Your task to perform on an android device: Do I have any events tomorrow? Image 0: 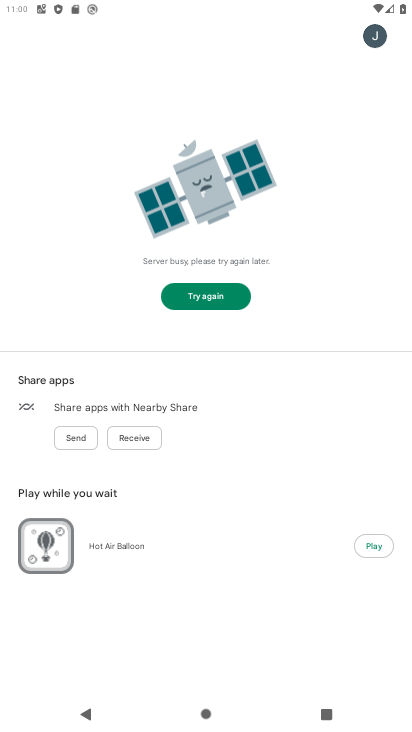
Step 0: press home button
Your task to perform on an android device: Do I have any events tomorrow? Image 1: 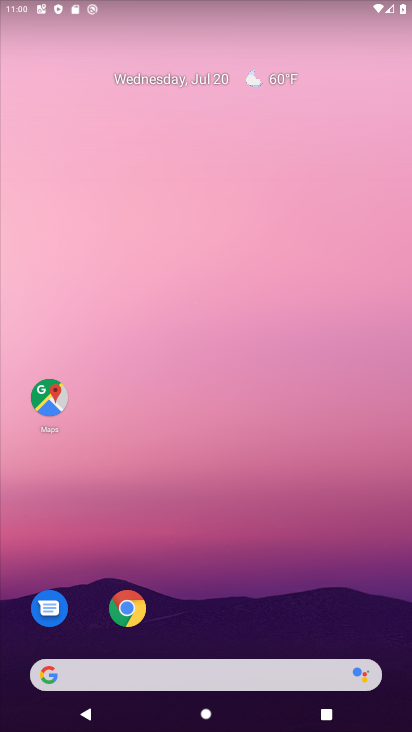
Step 1: drag from (266, 599) to (228, 0)
Your task to perform on an android device: Do I have any events tomorrow? Image 2: 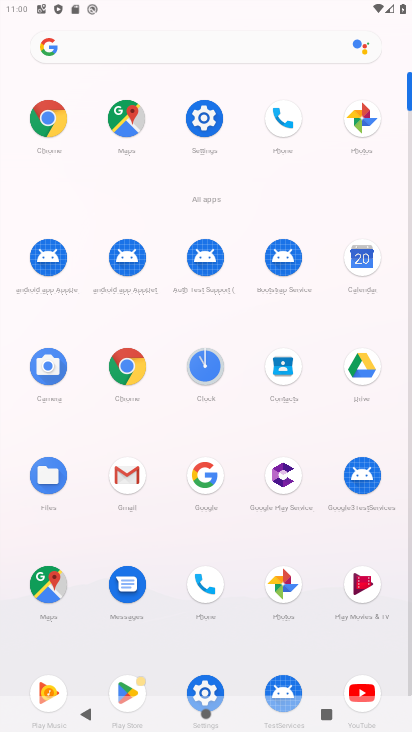
Step 2: click (362, 264)
Your task to perform on an android device: Do I have any events tomorrow? Image 3: 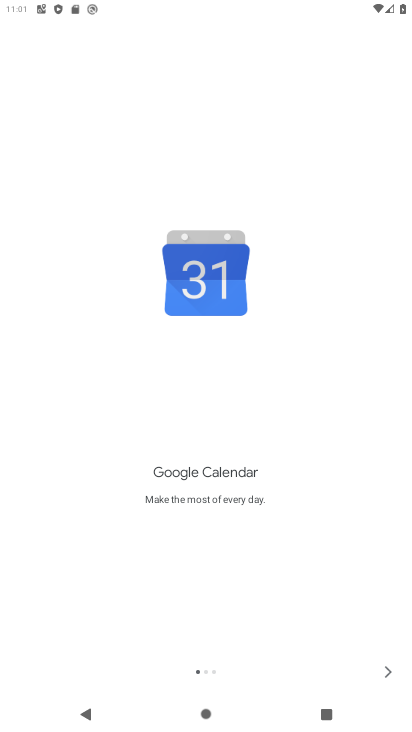
Step 3: click (384, 667)
Your task to perform on an android device: Do I have any events tomorrow? Image 4: 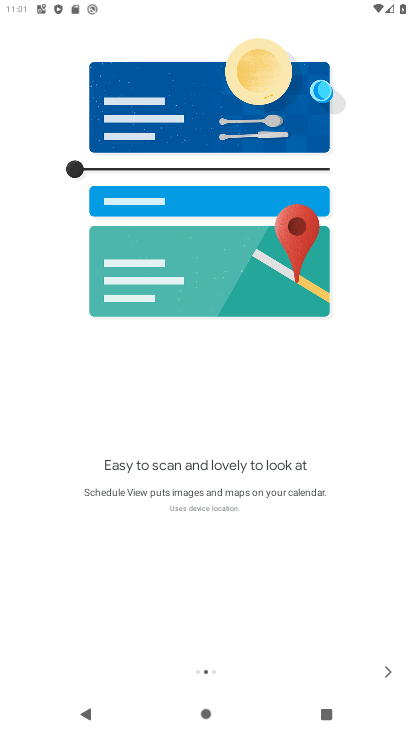
Step 4: click (384, 667)
Your task to perform on an android device: Do I have any events tomorrow? Image 5: 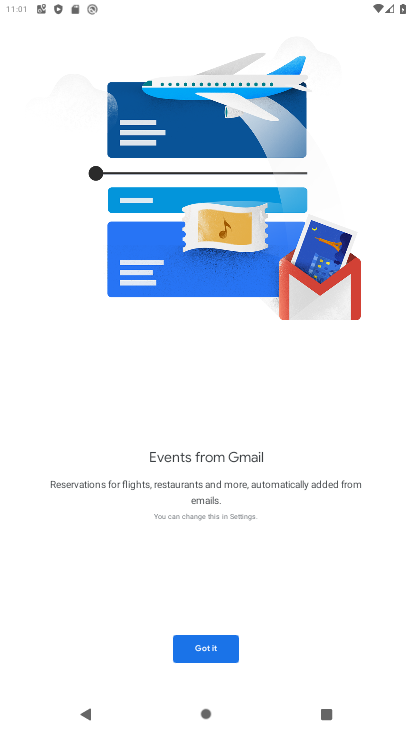
Step 5: click (198, 641)
Your task to perform on an android device: Do I have any events tomorrow? Image 6: 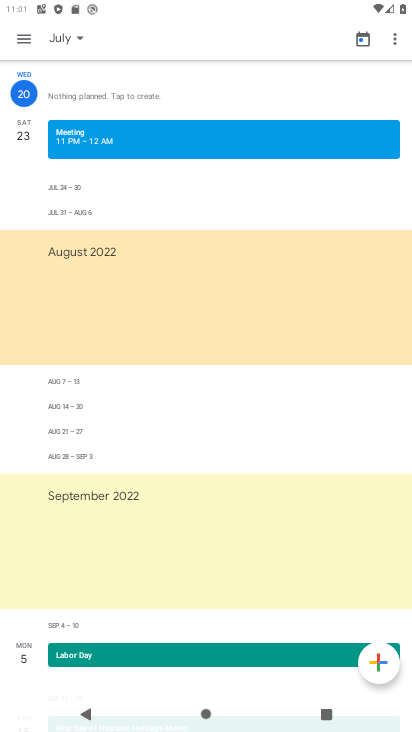
Step 6: click (63, 49)
Your task to perform on an android device: Do I have any events tomorrow? Image 7: 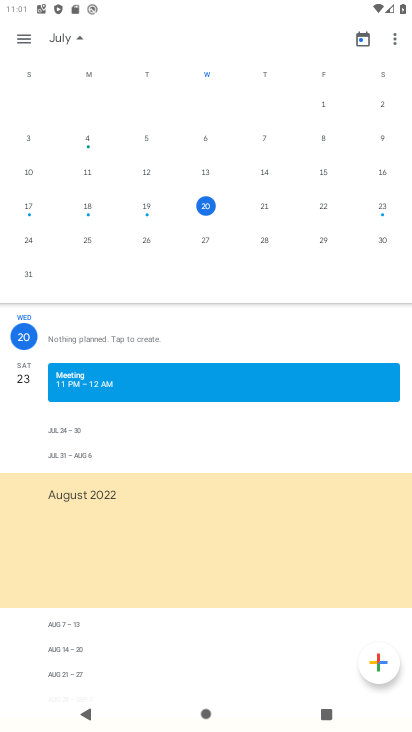
Step 7: click (264, 208)
Your task to perform on an android device: Do I have any events tomorrow? Image 8: 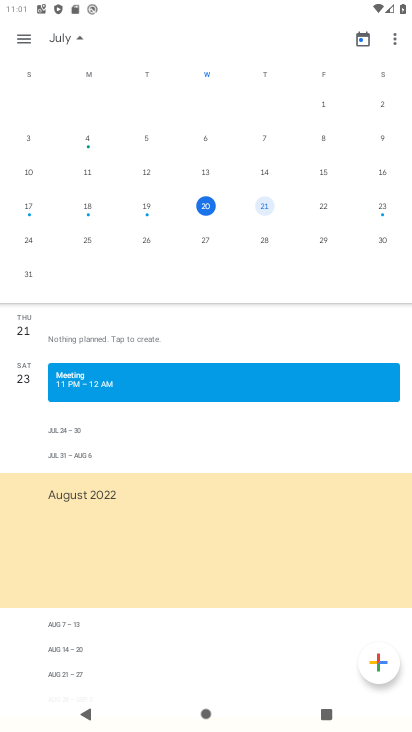
Step 8: task complete